Your task to perform on an android device: choose inbox layout in the gmail app Image 0: 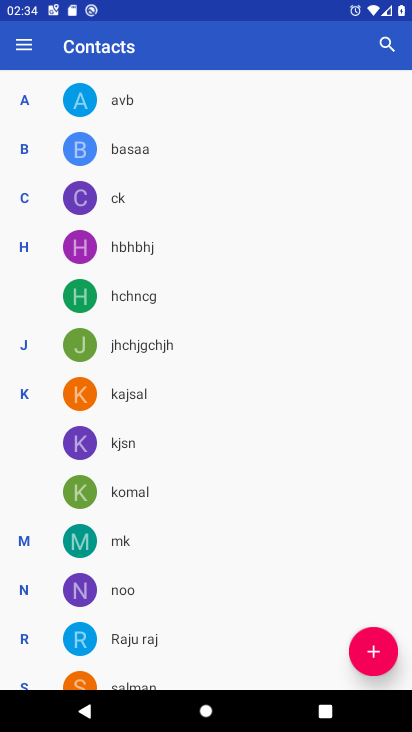
Step 0: press home button
Your task to perform on an android device: choose inbox layout in the gmail app Image 1: 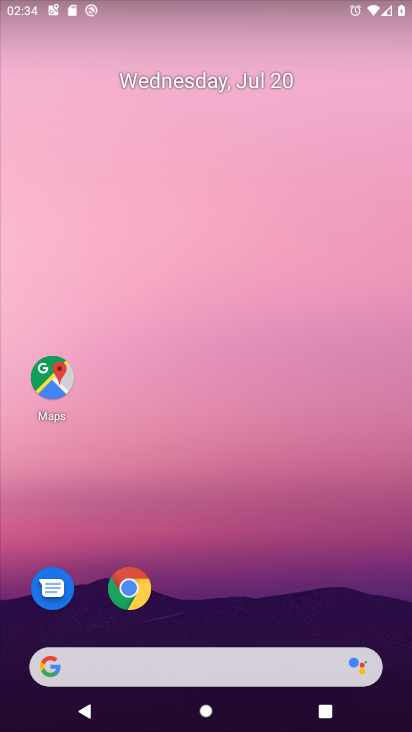
Step 1: drag from (221, 628) to (227, 121)
Your task to perform on an android device: choose inbox layout in the gmail app Image 2: 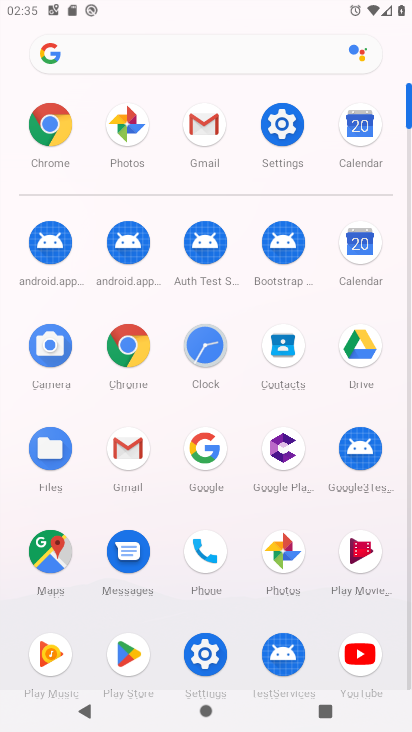
Step 2: click (127, 440)
Your task to perform on an android device: choose inbox layout in the gmail app Image 3: 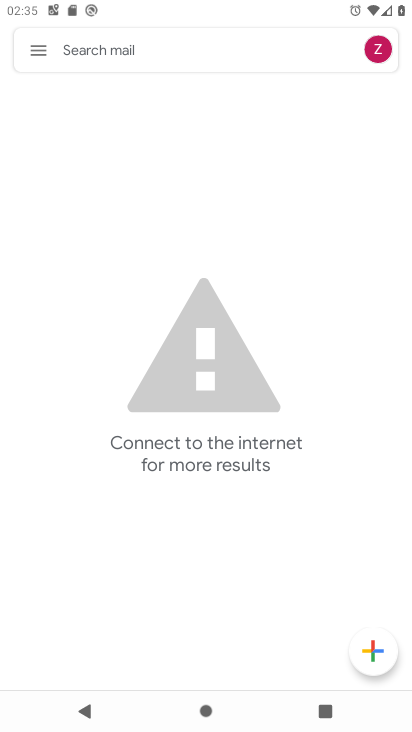
Step 3: click (36, 51)
Your task to perform on an android device: choose inbox layout in the gmail app Image 4: 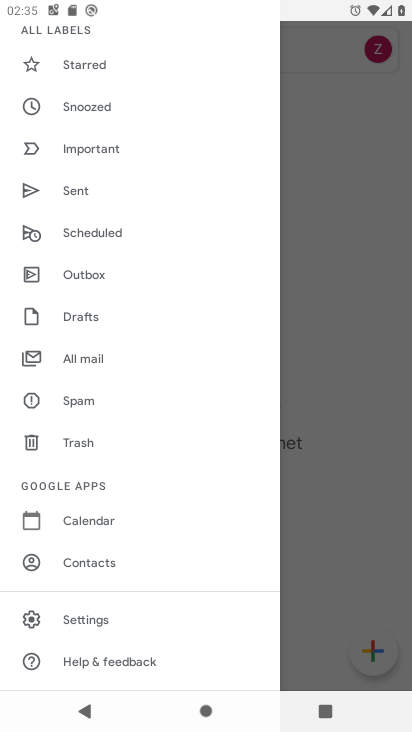
Step 4: click (88, 633)
Your task to perform on an android device: choose inbox layout in the gmail app Image 5: 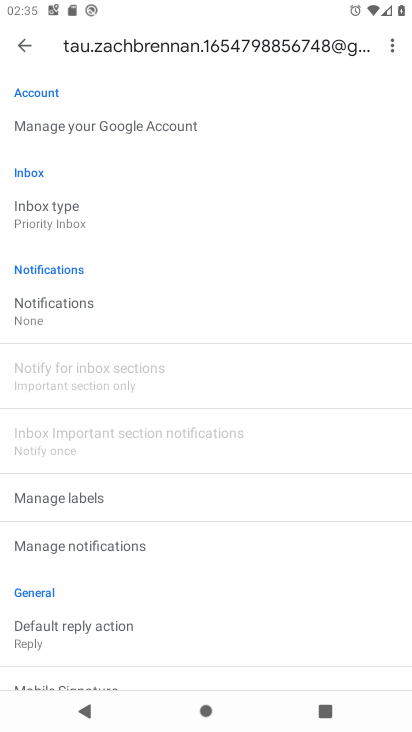
Step 5: click (36, 33)
Your task to perform on an android device: choose inbox layout in the gmail app Image 6: 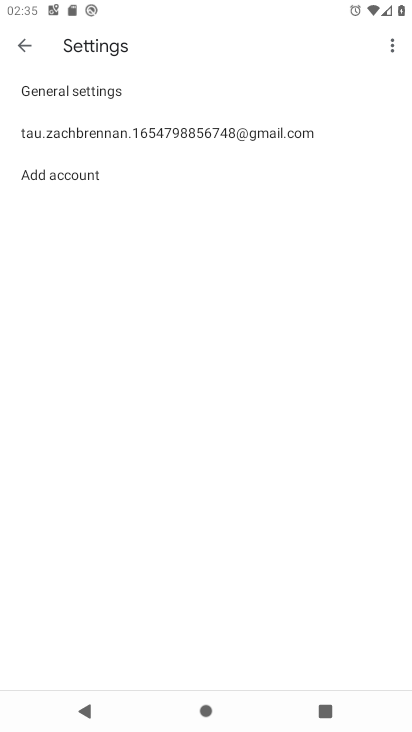
Step 6: click (27, 38)
Your task to perform on an android device: choose inbox layout in the gmail app Image 7: 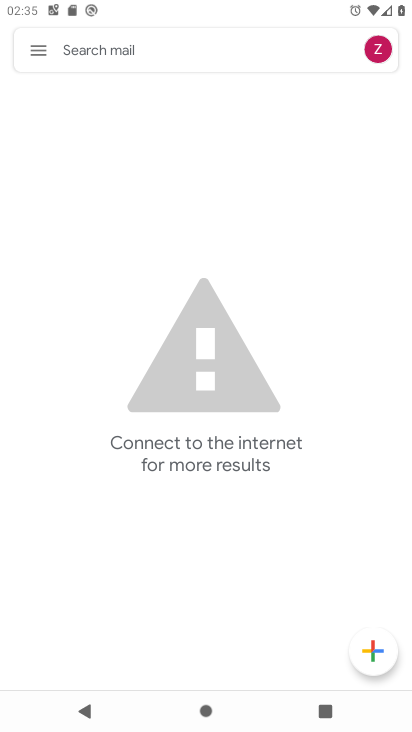
Step 7: click (29, 44)
Your task to perform on an android device: choose inbox layout in the gmail app Image 8: 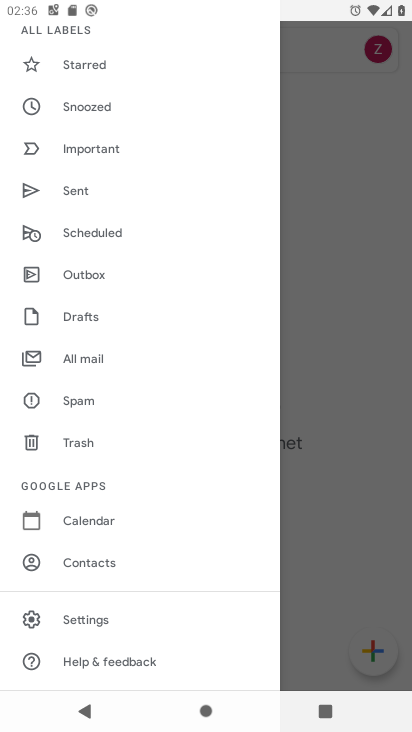
Step 8: click (92, 618)
Your task to perform on an android device: choose inbox layout in the gmail app Image 9: 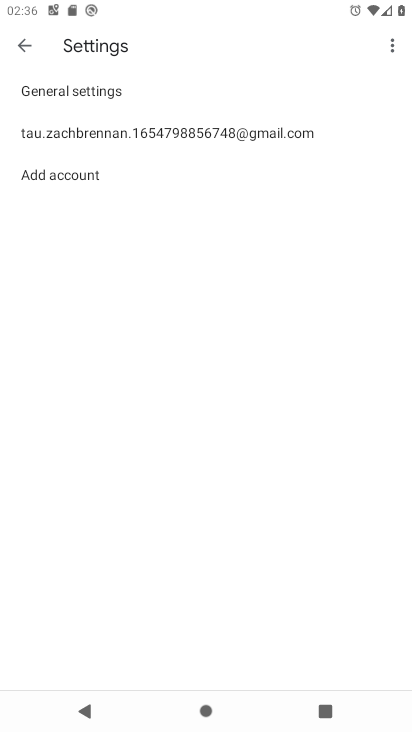
Step 9: click (75, 140)
Your task to perform on an android device: choose inbox layout in the gmail app Image 10: 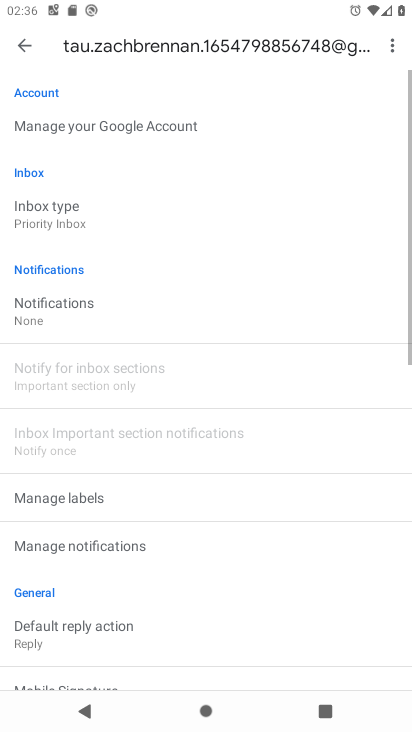
Step 10: click (69, 216)
Your task to perform on an android device: choose inbox layout in the gmail app Image 11: 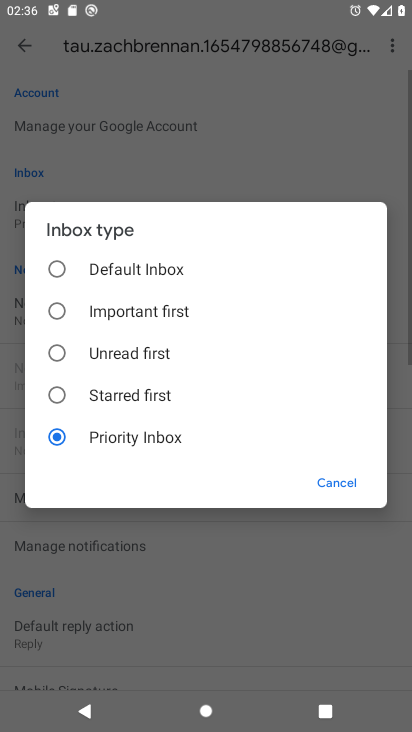
Step 11: click (115, 349)
Your task to perform on an android device: choose inbox layout in the gmail app Image 12: 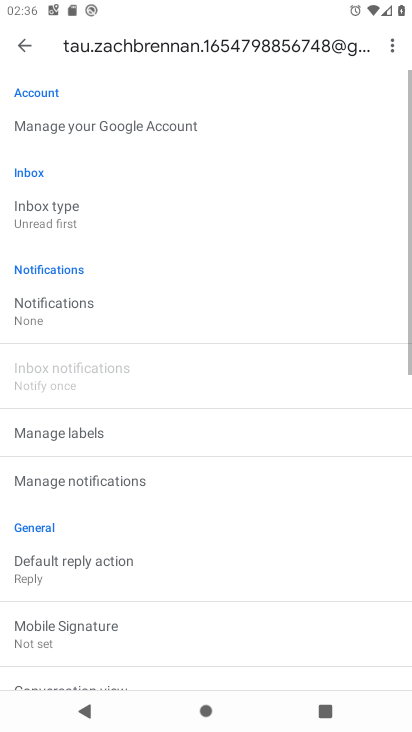
Step 12: task complete